Your task to perform on an android device: Go to accessibility settings Image 0: 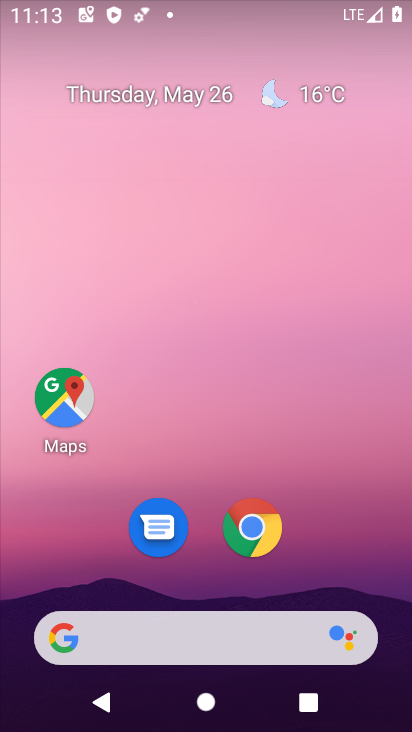
Step 0: drag from (190, 551) to (190, 3)
Your task to perform on an android device: Go to accessibility settings Image 1: 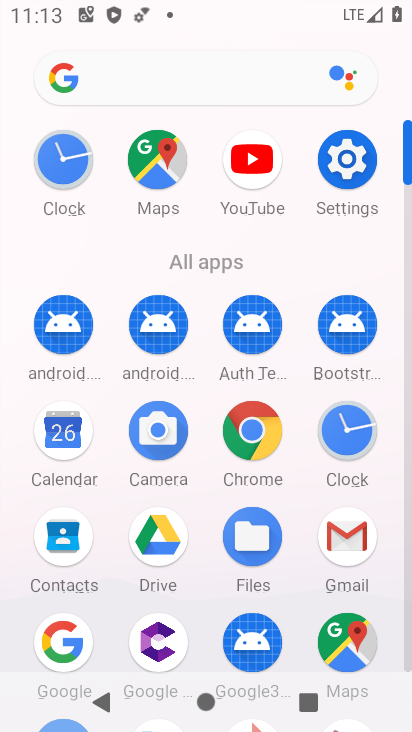
Step 1: click (344, 148)
Your task to perform on an android device: Go to accessibility settings Image 2: 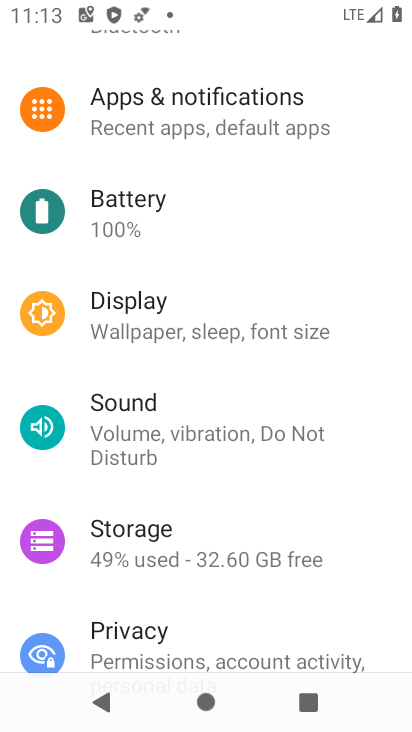
Step 2: drag from (177, 605) to (134, 53)
Your task to perform on an android device: Go to accessibility settings Image 3: 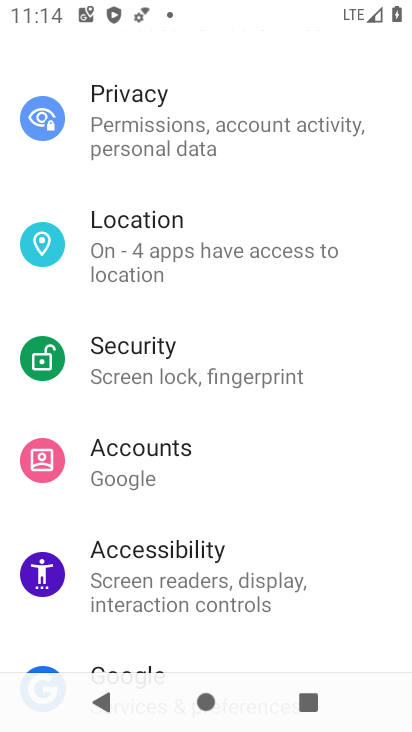
Step 3: click (205, 572)
Your task to perform on an android device: Go to accessibility settings Image 4: 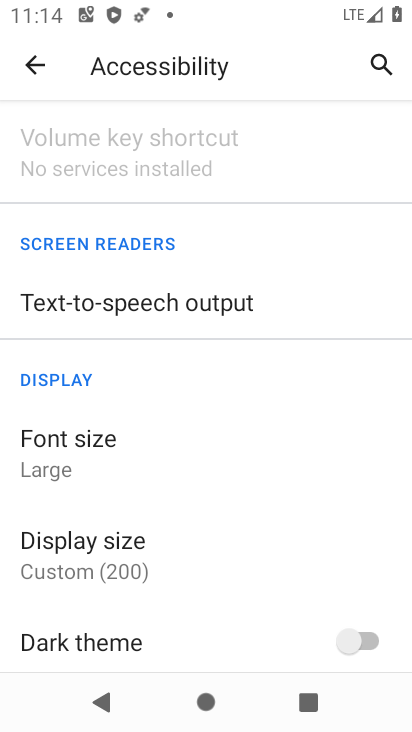
Step 4: task complete